Your task to perform on an android device: Turn on the flashlight Image 0: 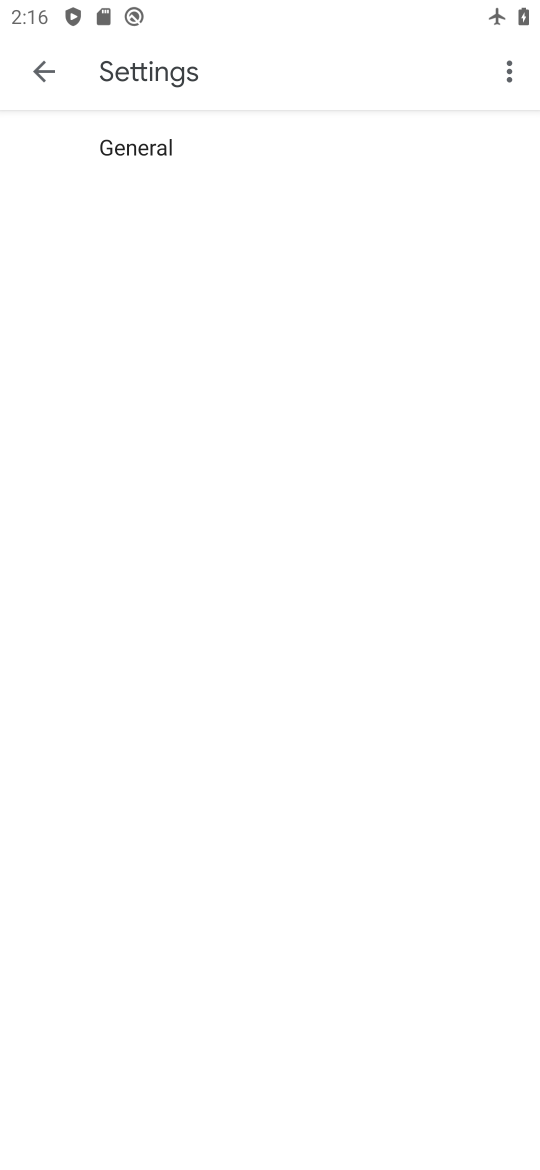
Step 0: press home button
Your task to perform on an android device: Turn on the flashlight Image 1: 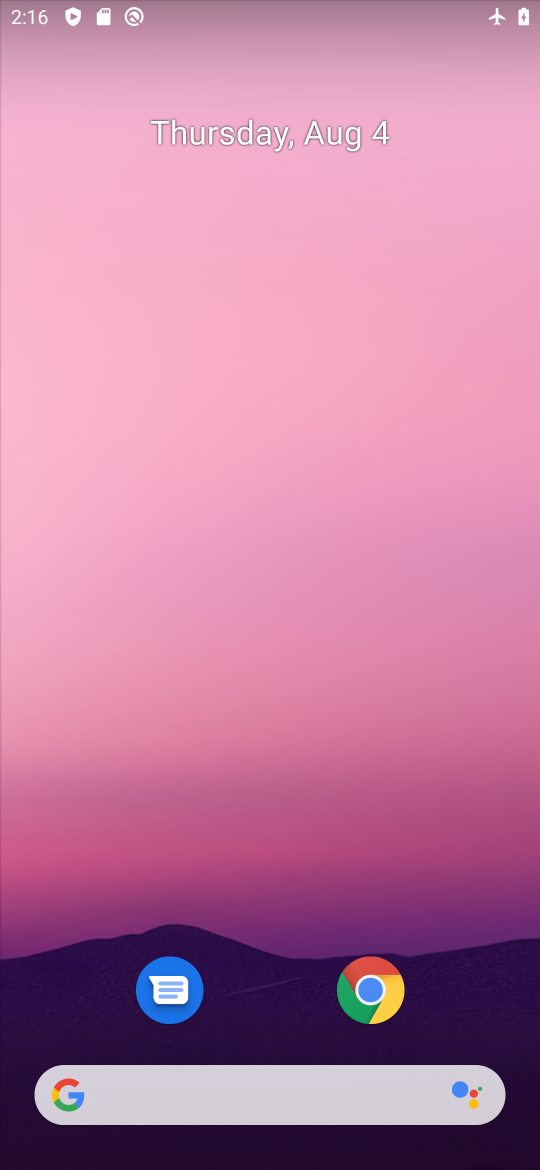
Step 1: drag from (273, 1048) to (348, 272)
Your task to perform on an android device: Turn on the flashlight Image 2: 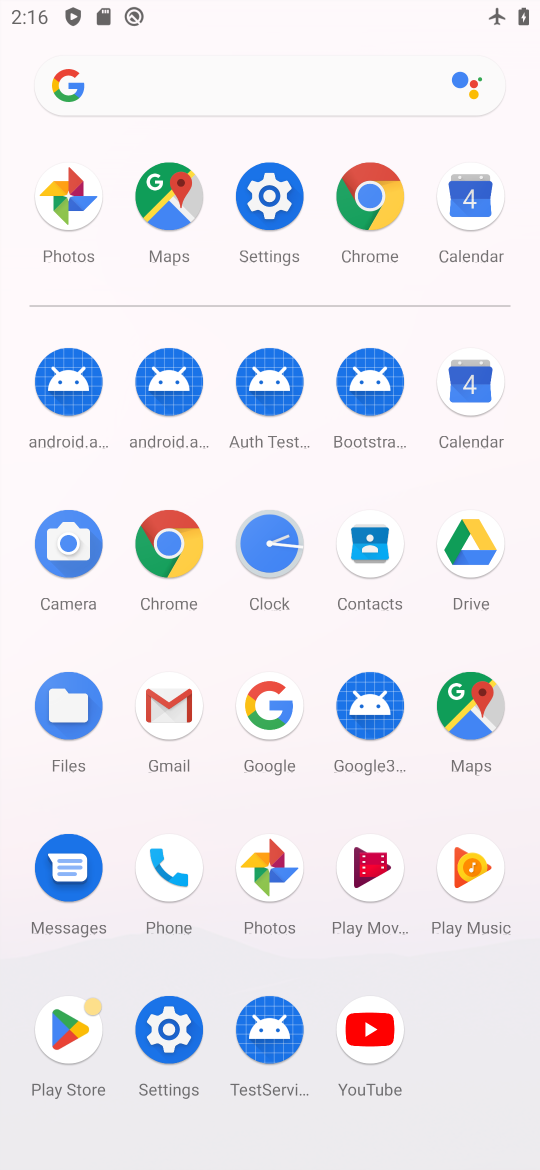
Step 2: click (284, 265)
Your task to perform on an android device: Turn on the flashlight Image 3: 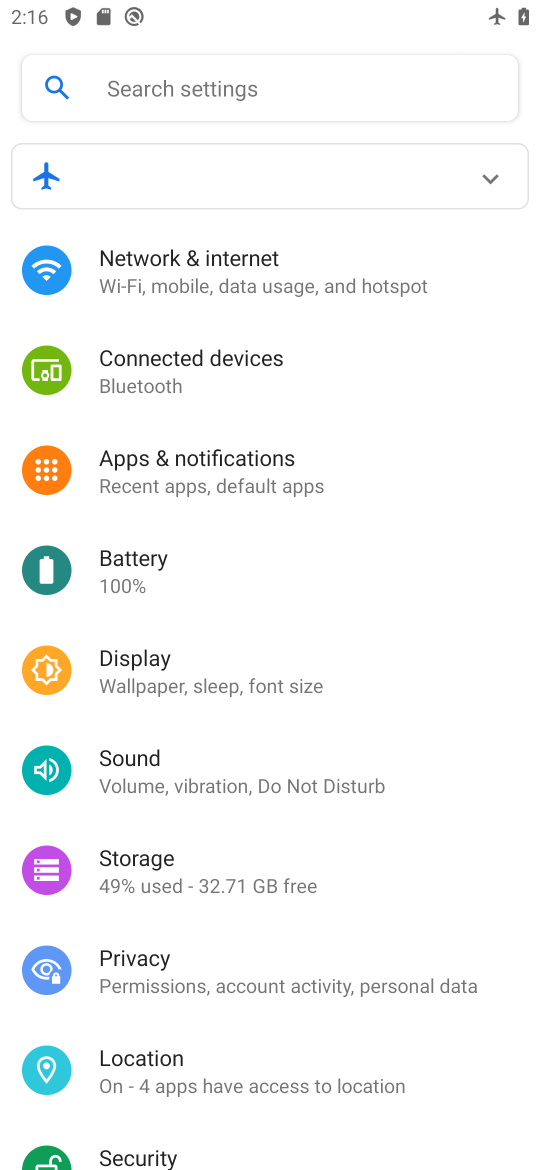
Step 3: task complete